Your task to perform on an android device: turn pop-ups on in chrome Image 0: 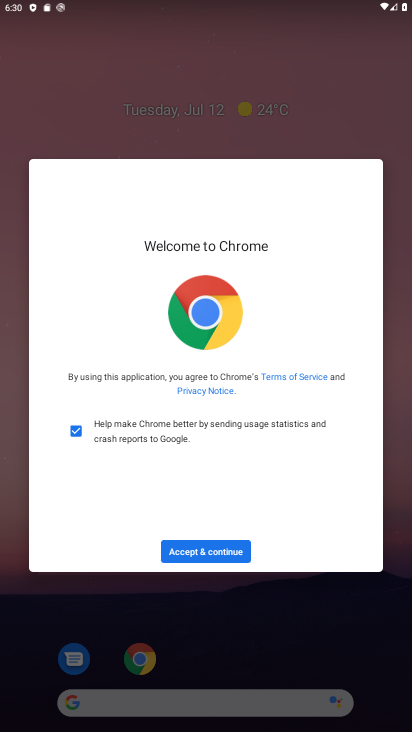
Step 0: press home button
Your task to perform on an android device: turn pop-ups on in chrome Image 1: 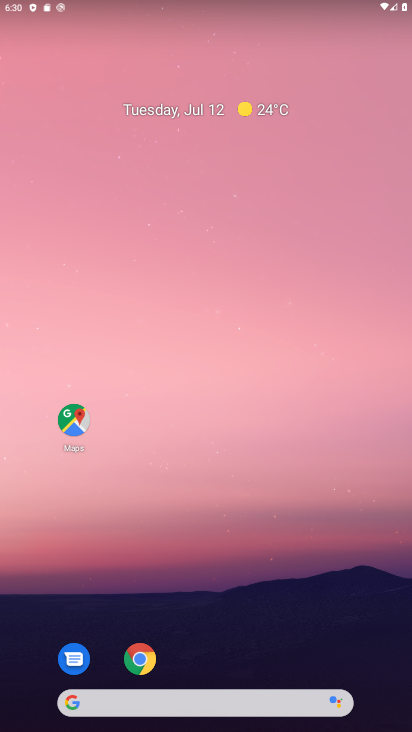
Step 1: click (142, 655)
Your task to perform on an android device: turn pop-ups on in chrome Image 2: 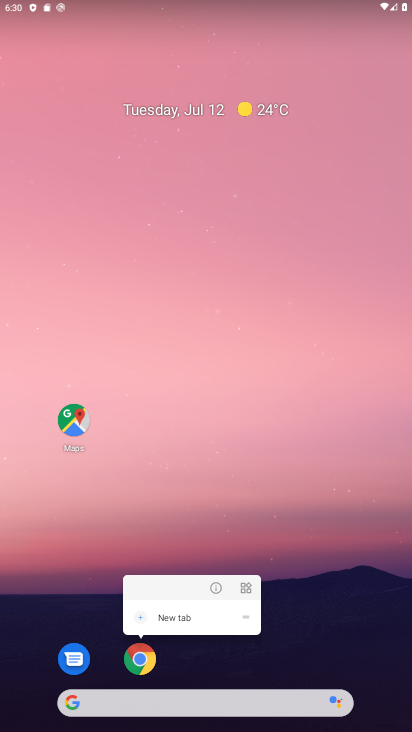
Step 2: click (142, 655)
Your task to perform on an android device: turn pop-ups on in chrome Image 3: 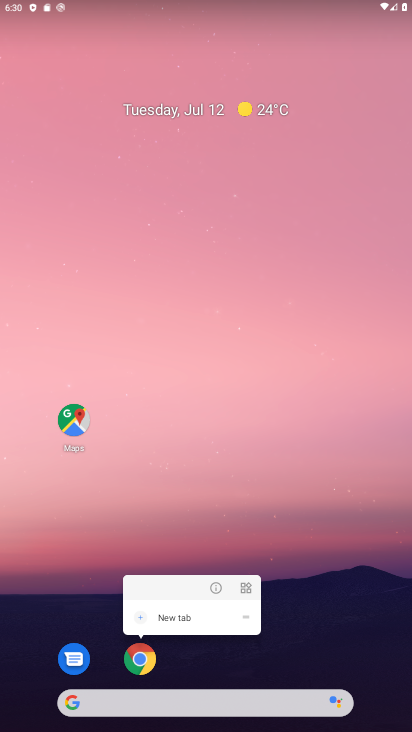
Step 3: click (141, 655)
Your task to perform on an android device: turn pop-ups on in chrome Image 4: 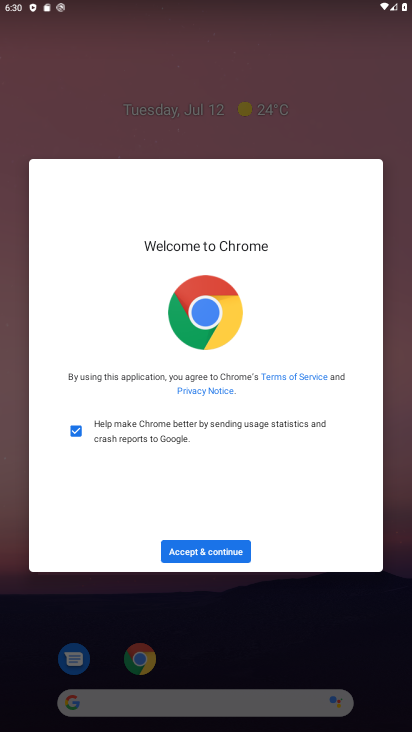
Step 4: click (202, 550)
Your task to perform on an android device: turn pop-ups on in chrome Image 5: 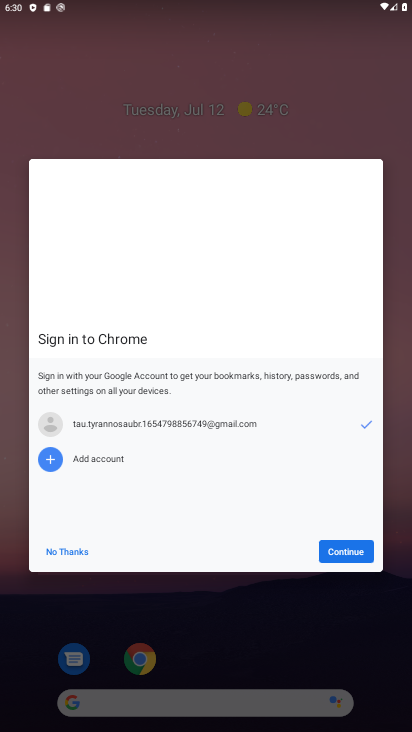
Step 5: click (319, 549)
Your task to perform on an android device: turn pop-ups on in chrome Image 6: 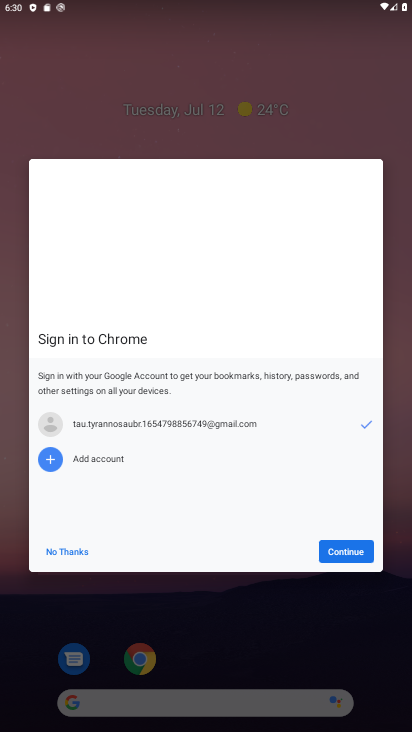
Step 6: click (348, 551)
Your task to perform on an android device: turn pop-ups on in chrome Image 7: 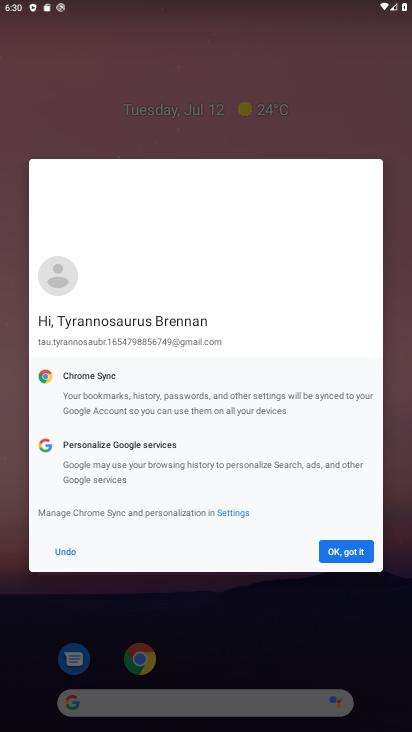
Step 7: click (347, 551)
Your task to perform on an android device: turn pop-ups on in chrome Image 8: 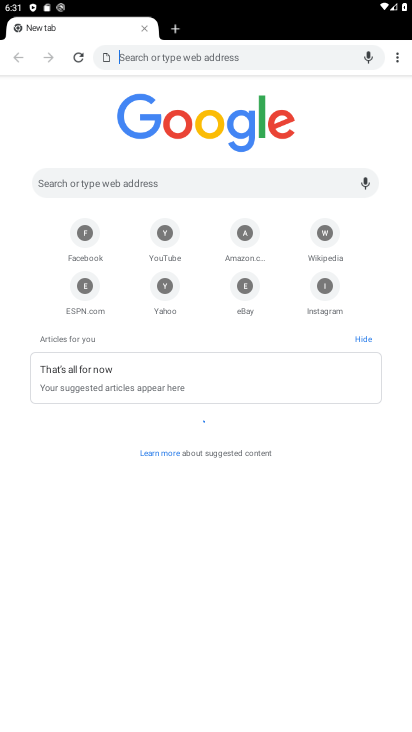
Step 8: click (388, 53)
Your task to perform on an android device: turn pop-ups on in chrome Image 9: 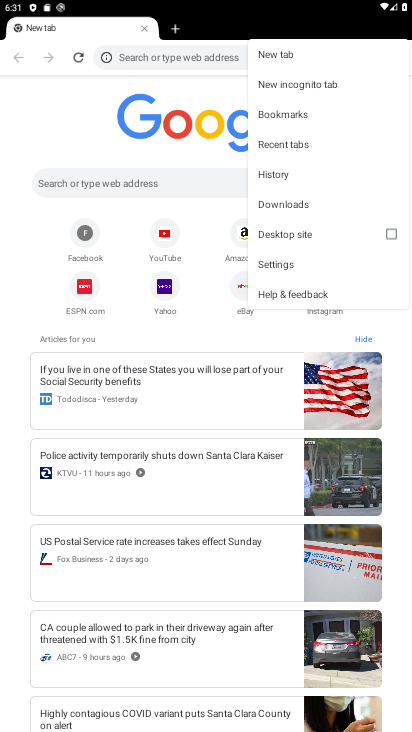
Step 9: click (303, 262)
Your task to perform on an android device: turn pop-ups on in chrome Image 10: 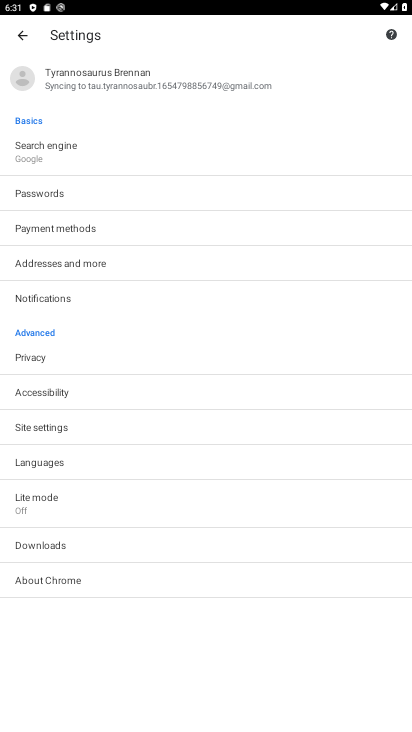
Step 10: click (86, 434)
Your task to perform on an android device: turn pop-ups on in chrome Image 11: 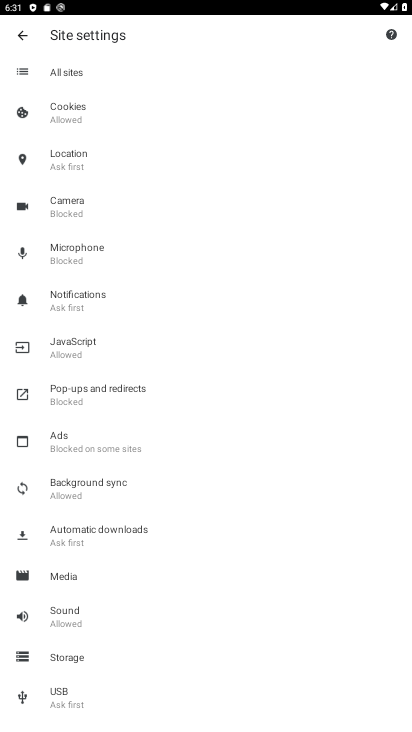
Step 11: click (71, 392)
Your task to perform on an android device: turn pop-ups on in chrome Image 12: 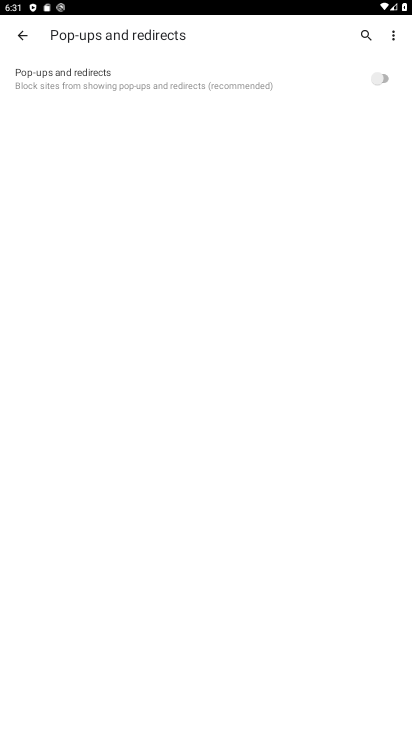
Step 12: click (364, 87)
Your task to perform on an android device: turn pop-ups on in chrome Image 13: 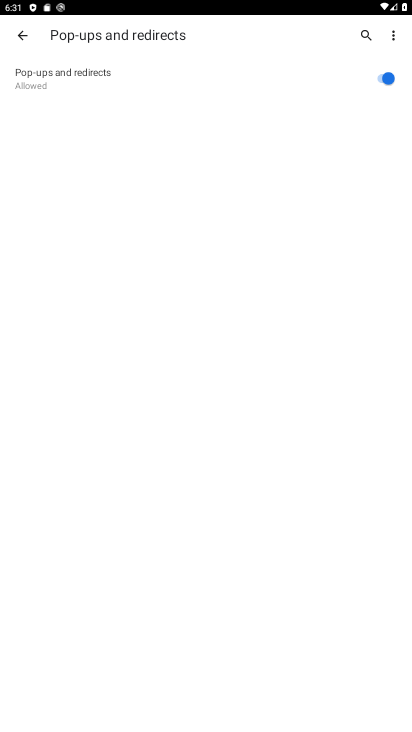
Step 13: task complete